Your task to perform on an android device: turn off translation in the chrome app Image 0: 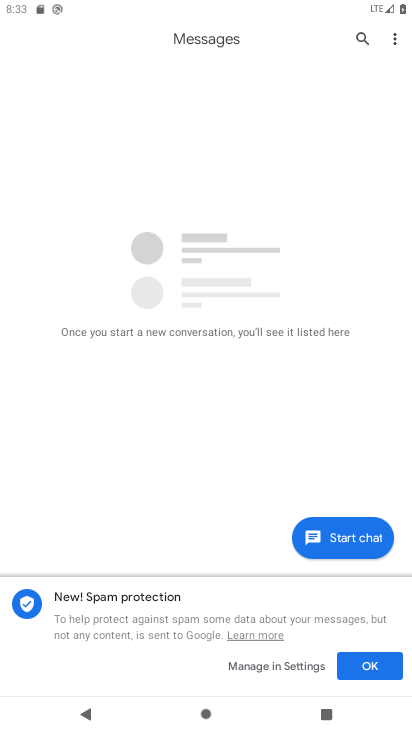
Step 0: press home button
Your task to perform on an android device: turn off translation in the chrome app Image 1: 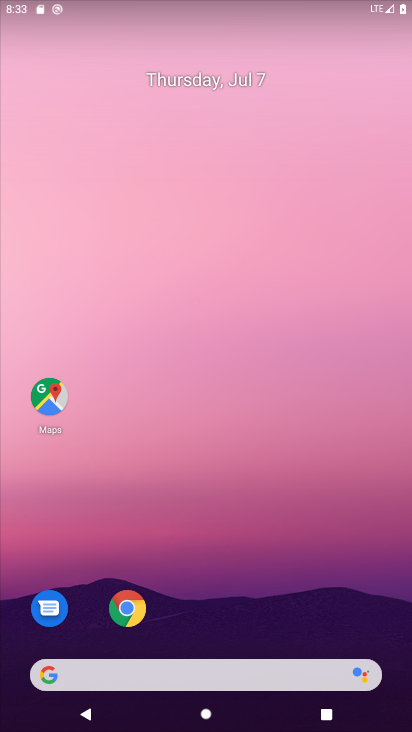
Step 1: drag from (315, 595) to (278, 56)
Your task to perform on an android device: turn off translation in the chrome app Image 2: 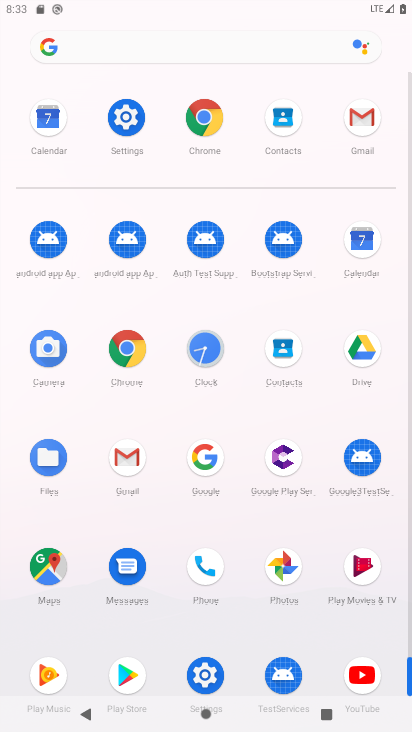
Step 2: click (143, 360)
Your task to perform on an android device: turn off translation in the chrome app Image 3: 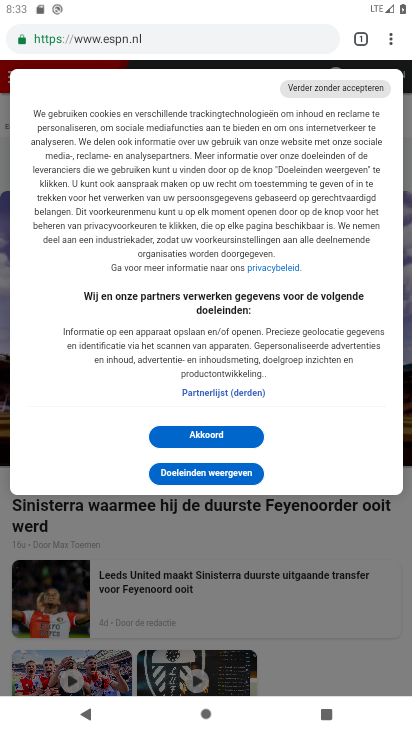
Step 3: click (388, 39)
Your task to perform on an android device: turn off translation in the chrome app Image 4: 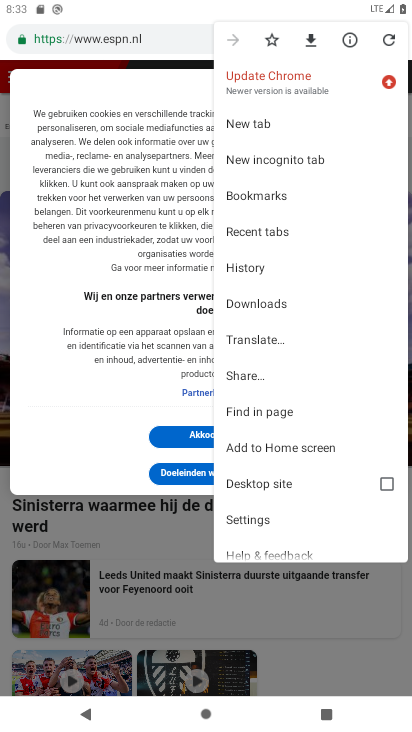
Step 4: click (283, 518)
Your task to perform on an android device: turn off translation in the chrome app Image 5: 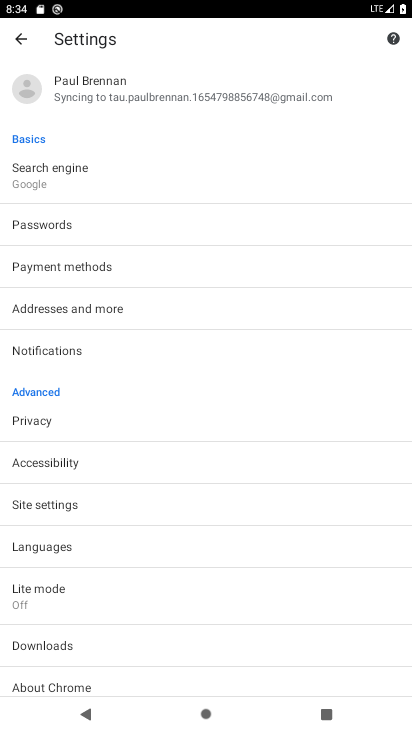
Step 5: drag from (225, 598) to (245, 425)
Your task to perform on an android device: turn off translation in the chrome app Image 6: 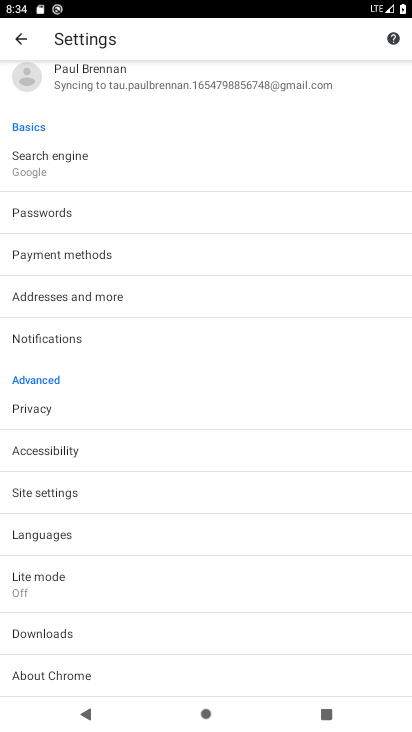
Step 6: click (244, 535)
Your task to perform on an android device: turn off translation in the chrome app Image 7: 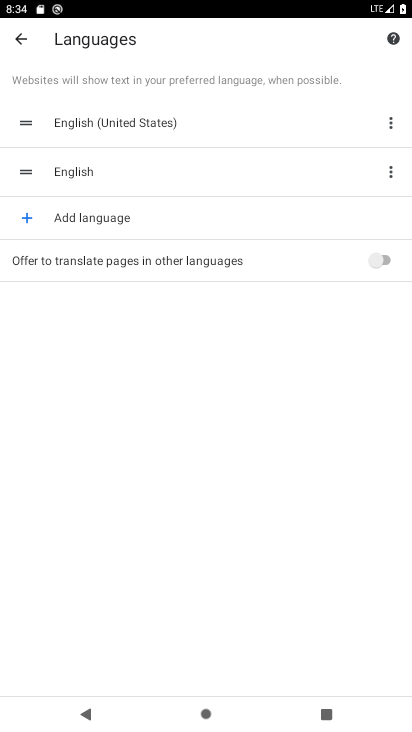
Step 7: task complete